Your task to perform on an android device: Search for acer predator on target, select the first entry, add it to the cart, then select checkout. Image 0: 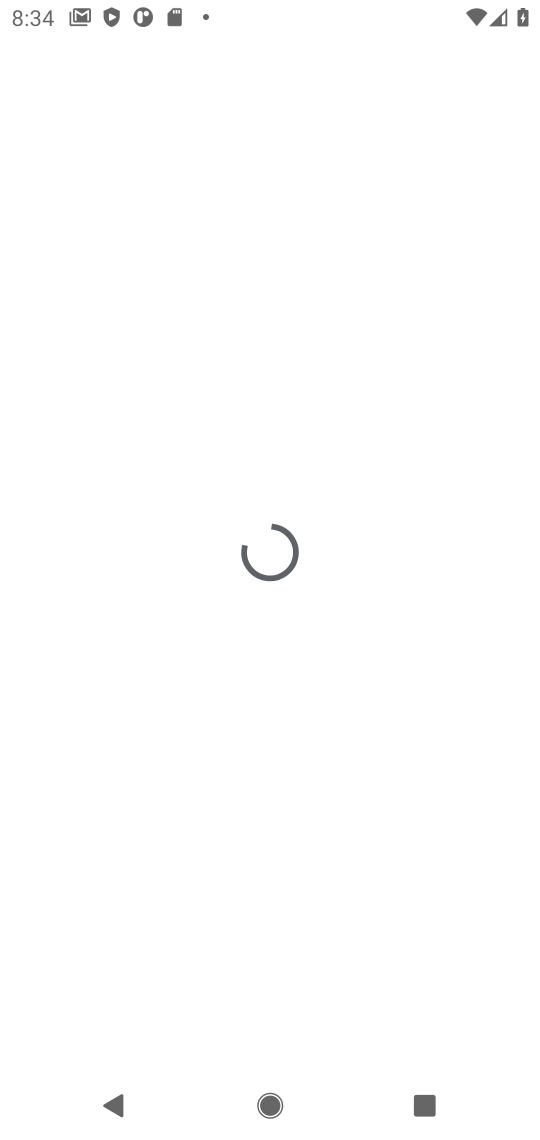
Step 0: press back button
Your task to perform on an android device: Search for acer predator on target, select the first entry, add it to the cart, then select checkout. Image 1: 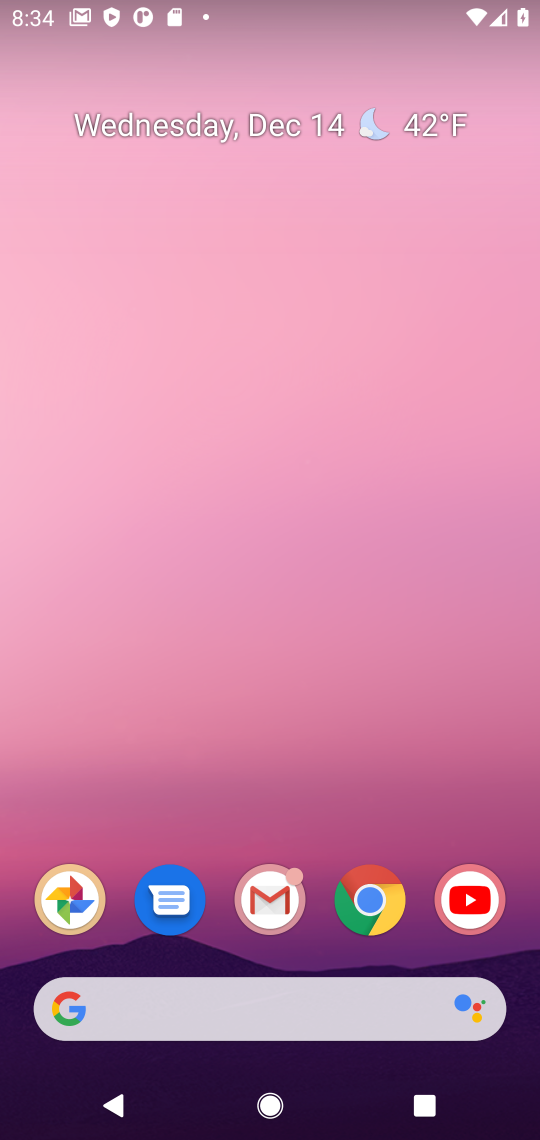
Step 1: click (378, 909)
Your task to perform on an android device: Search for acer predator on target, select the first entry, add it to the cart, then select checkout. Image 2: 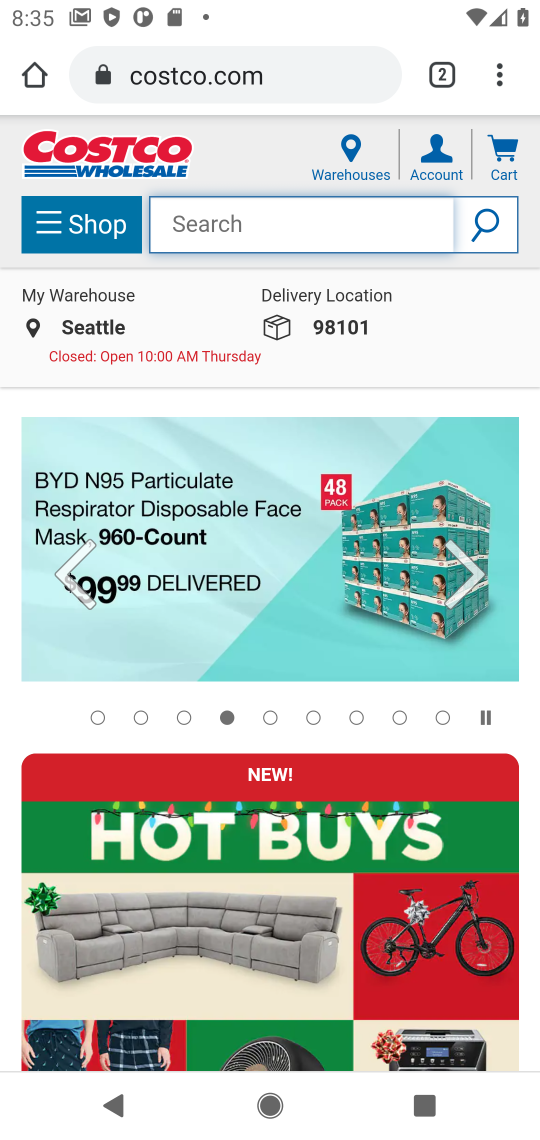
Step 2: click (290, 82)
Your task to perform on an android device: Search for acer predator on target, select the first entry, add it to the cart, then select checkout. Image 3: 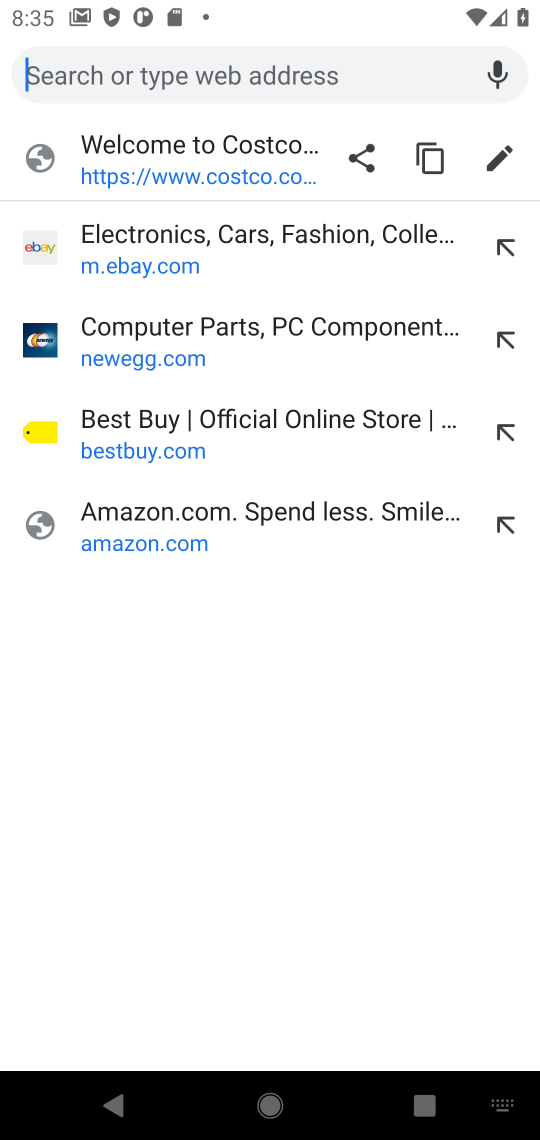
Step 3: type "target.com"
Your task to perform on an android device: Search for acer predator on target, select the first entry, add it to the cart, then select checkout. Image 4: 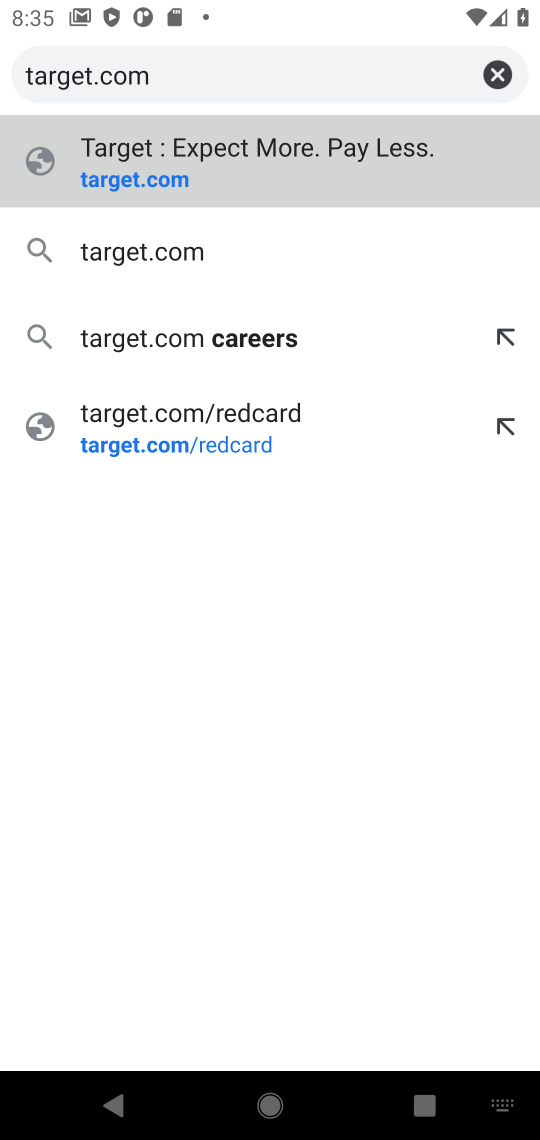
Step 4: click (140, 184)
Your task to perform on an android device: Search for acer predator on target, select the first entry, add it to the cart, then select checkout. Image 5: 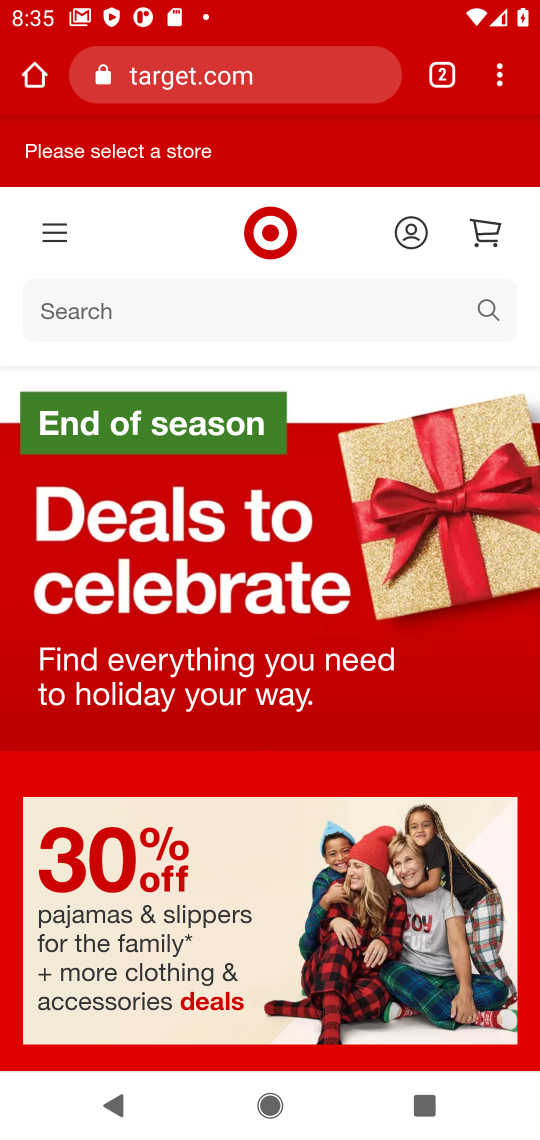
Step 5: click (364, 311)
Your task to perform on an android device: Search for acer predator on target, select the first entry, add it to the cart, then select checkout. Image 6: 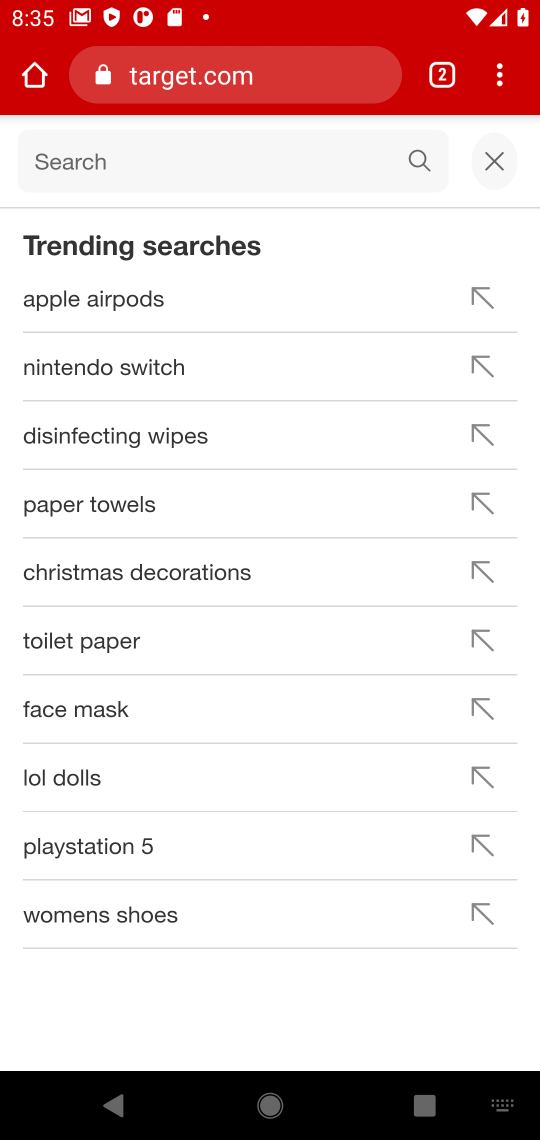
Step 6: type "acer predator"
Your task to perform on an android device: Search for acer predator on target, select the first entry, add it to the cart, then select checkout. Image 7: 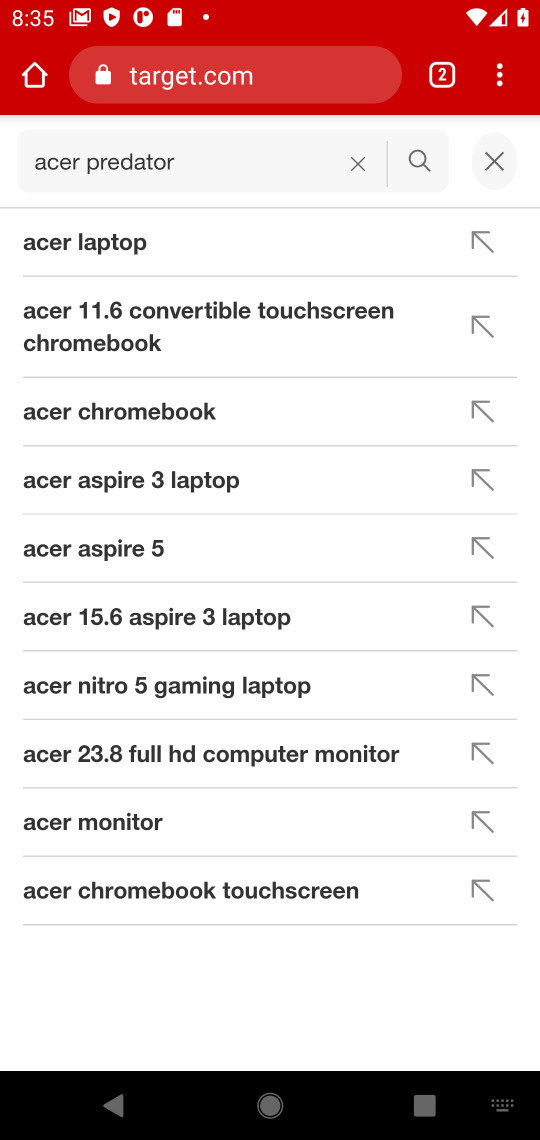
Step 7: click (428, 163)
Your task to perform on an android device: Search for acer predator on target, select the first entry, add it to the cart, then select checkout. Image 8: 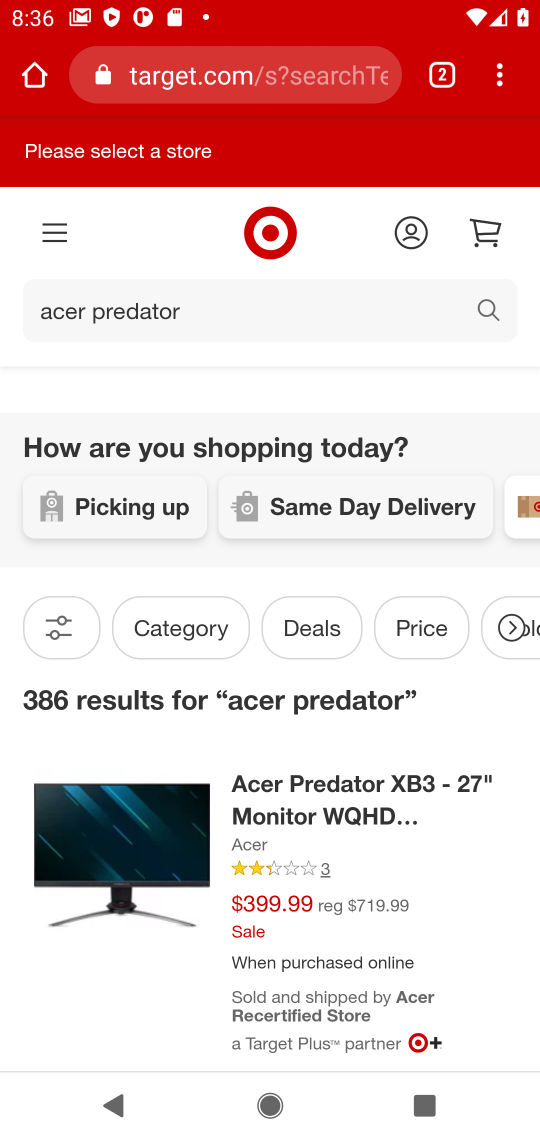
Step 8: click (289, 821)
Your task to perform on an android device: Search for acer predator on target, select the first entry, add it to the cart, then select checkout. Image 9: 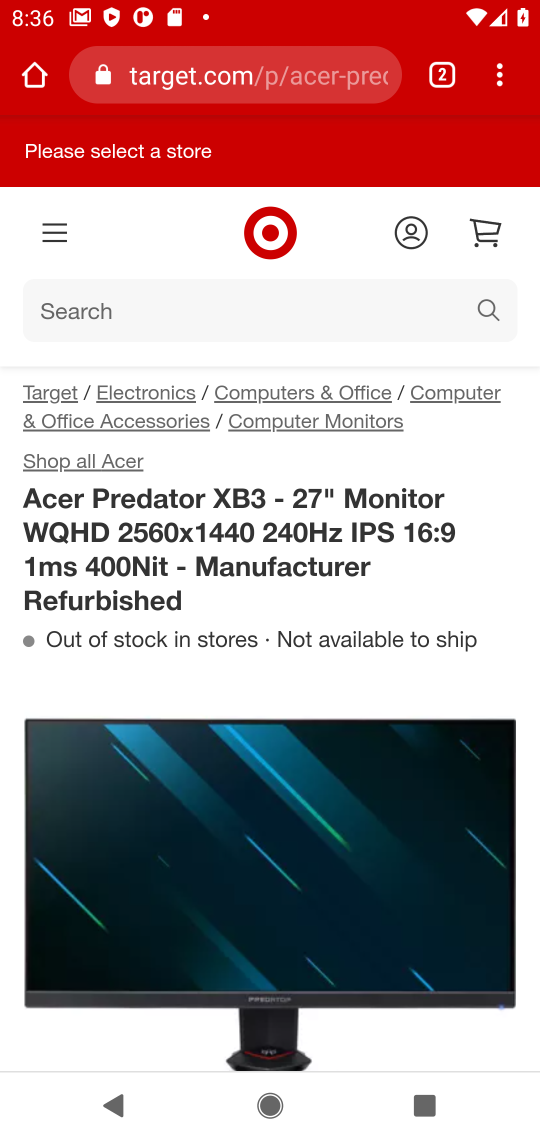
Step 9: drag from (265, 883) to (312, 580)
Your task to perform on an android device: Search for acer predator on target, select the first entry, add it to the cart, then select checkout. Image 10: 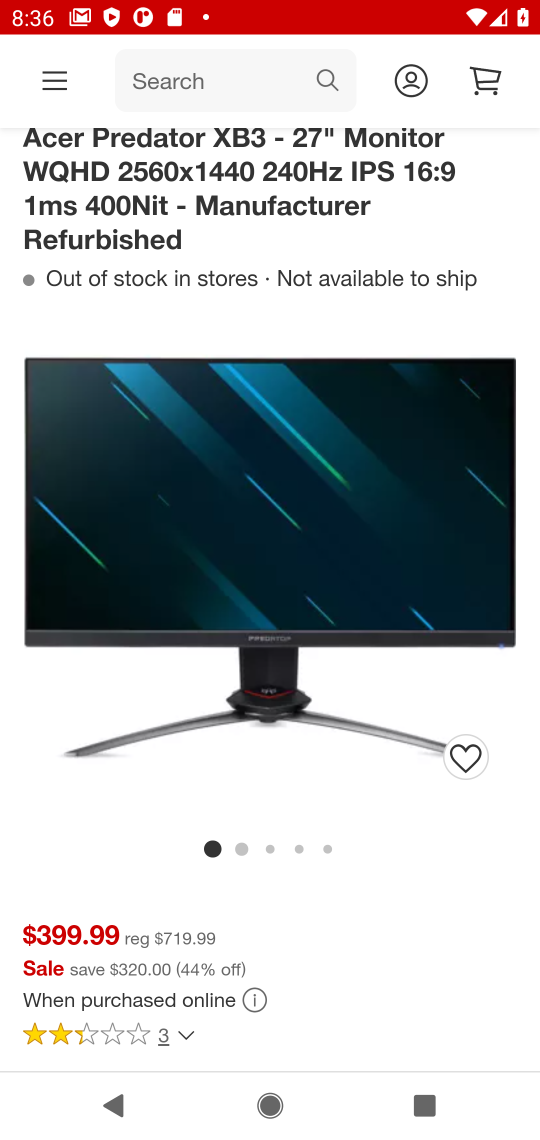
Step 10: drag from (368, 875) to (398, 550)
Your task to perform on an android device: Search for acer predator on target, select the first entry, add it to the cart, then select checkout. Image 11: 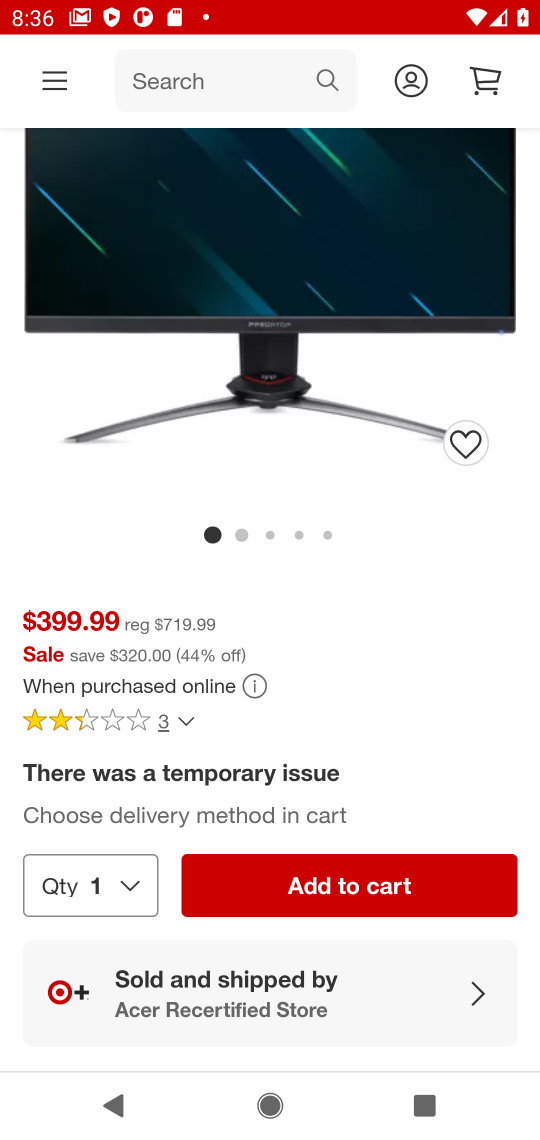
Step 11: click (352, 885)
Your task to perform on an android device: Search for acer predator on target, select the first entry, add it to the cart, then select checkout. Image 12: 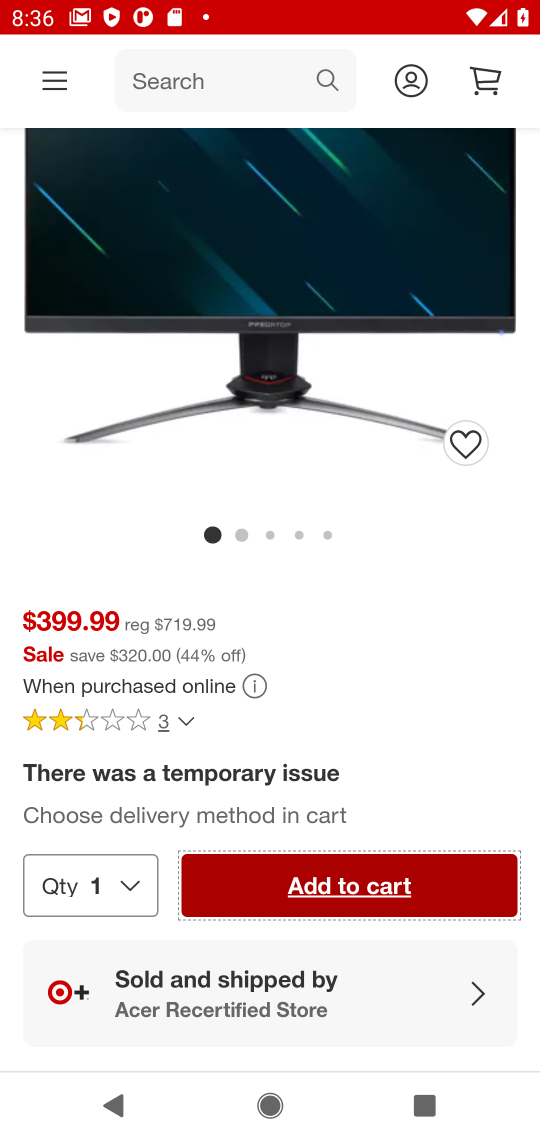
Step 12: click (377, 886)
Your task to perform on an android device: Search for acer predator on target, select the first entry, add it to the cart, then select checkout. Image 13: 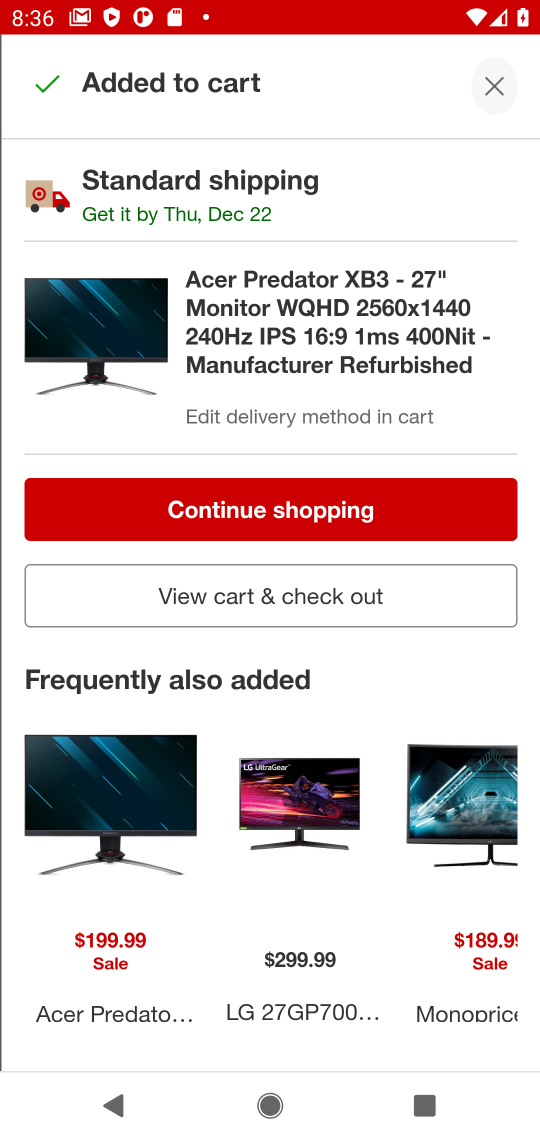
Step 13: click (320, 600)
Your task to perform on an android device: Search for acer predator on target, select the first entry, add it to the cart, then select checkout. Image 14: 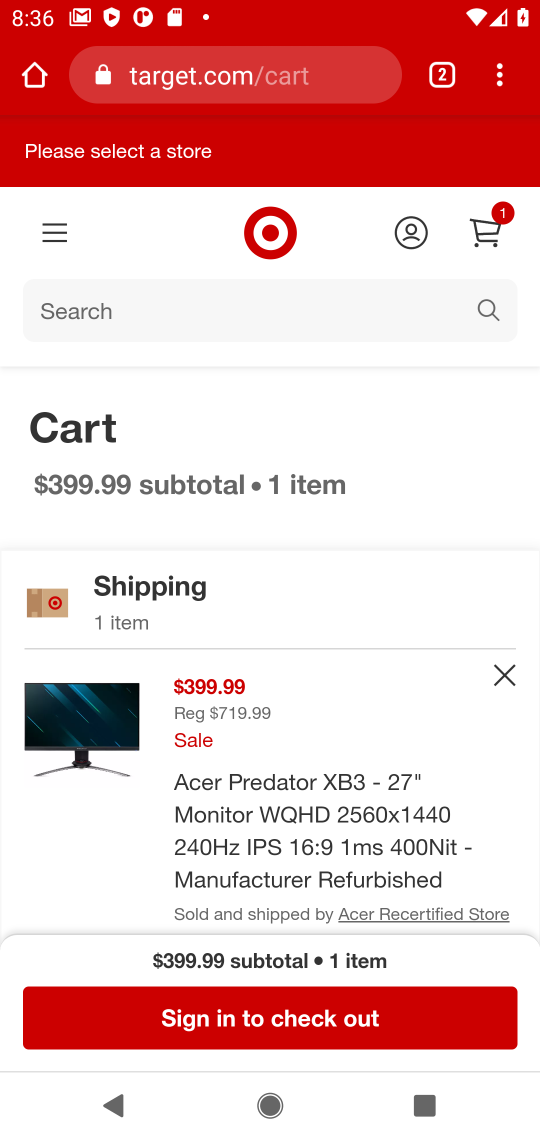
Step 14: drag from (382, 571) to (405, 291)
Your task to perform on an android device: Search for acer predator on target, select the first entry, add it to the cart, then select checkout. Image 15: 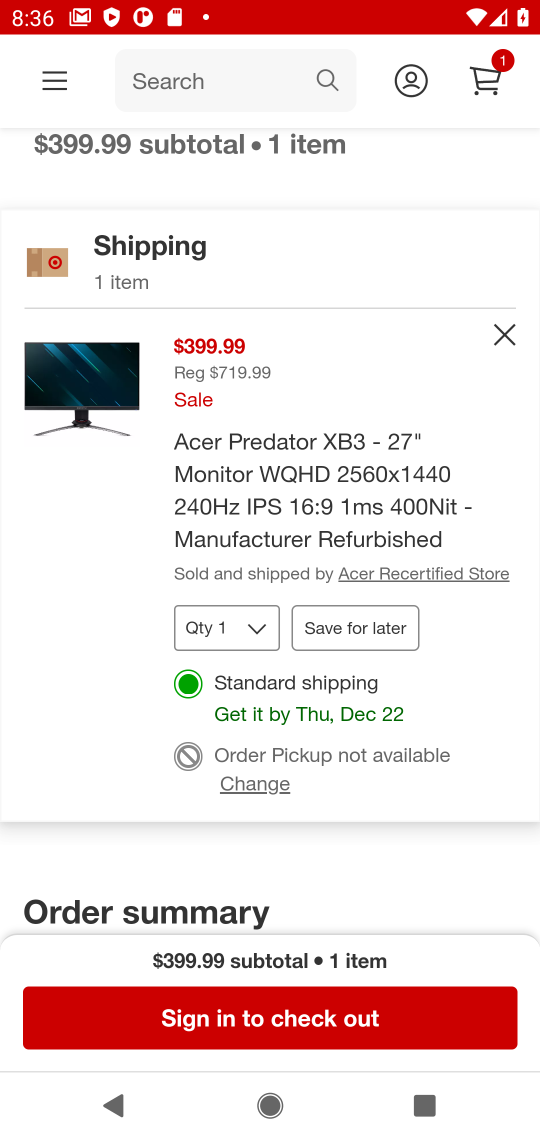
Step 15: click (319, 1018)
Your task to perform on an android device: Search for acer predator on target, select the first entry, add it to the cart, then select checkout. Image 16: 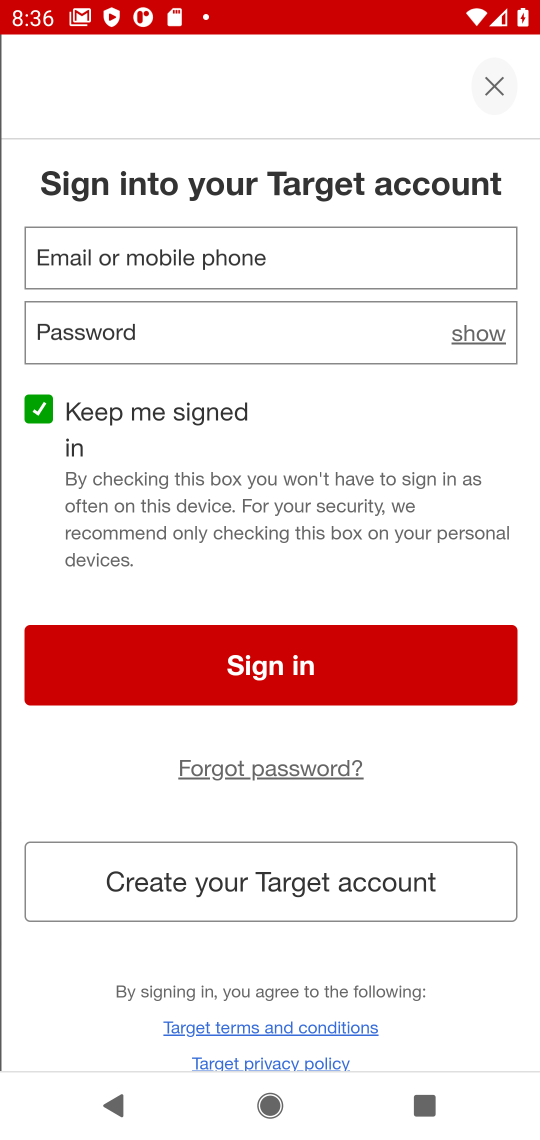
Step 16: task complete